Your task to perform on an android device: check android version Image 0: 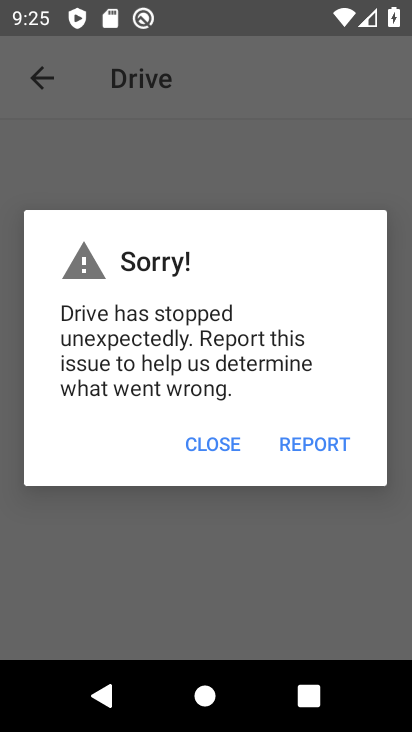
Step 0: press home button
Your task to perform on an android device: check android version Image 1: 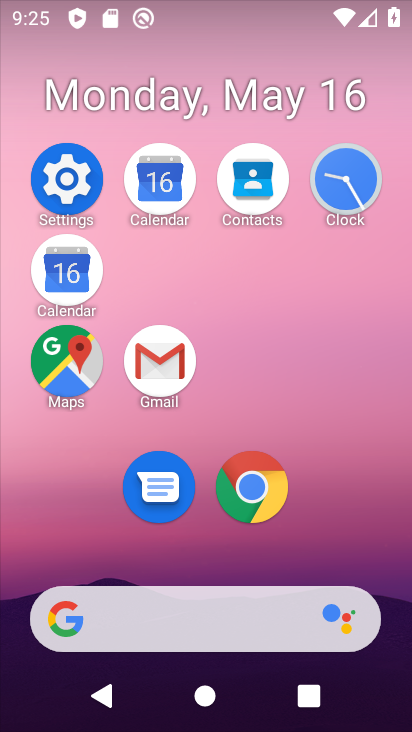
Step 1: click (81, 170)
Your task to perform on an android device: check android version Image 2: 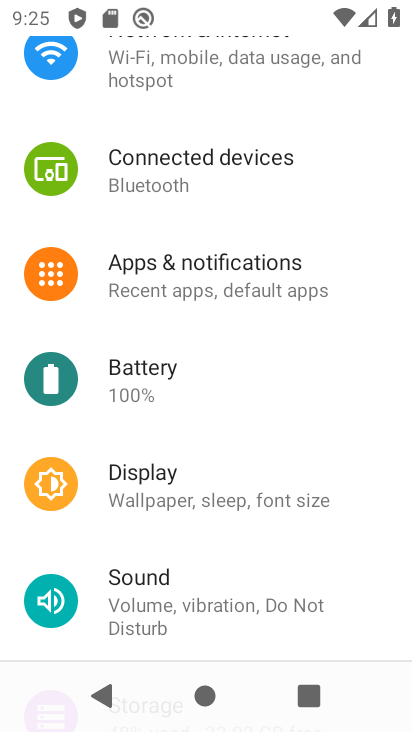
Step 2: drag from (299, 608) to (308, 172)
Your task to perform on an android device: check android version Image 3: 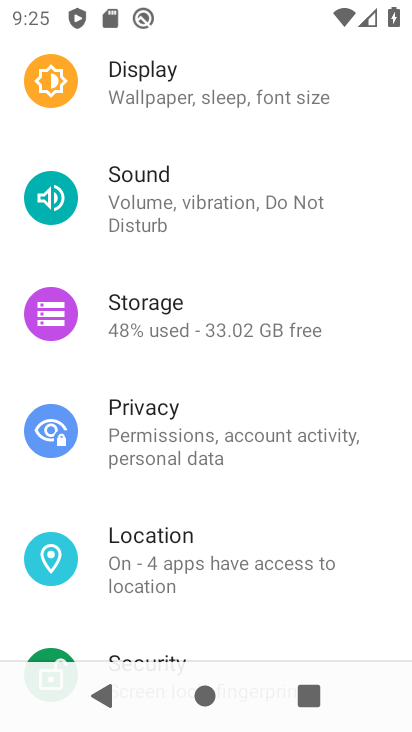
Step 3: drag from (232, 589) to (226, 181)
Your task to perform on an android device: check android version Image 4: 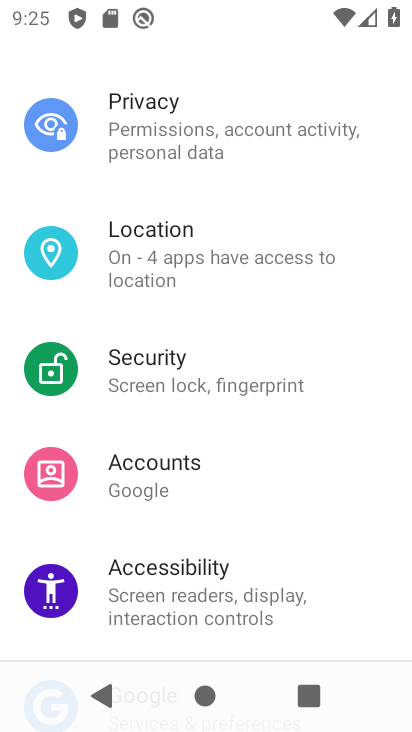
Step 4: drag from (195, 550) to (188, 173)
Your task to perform on an android device: check android version Image 5: 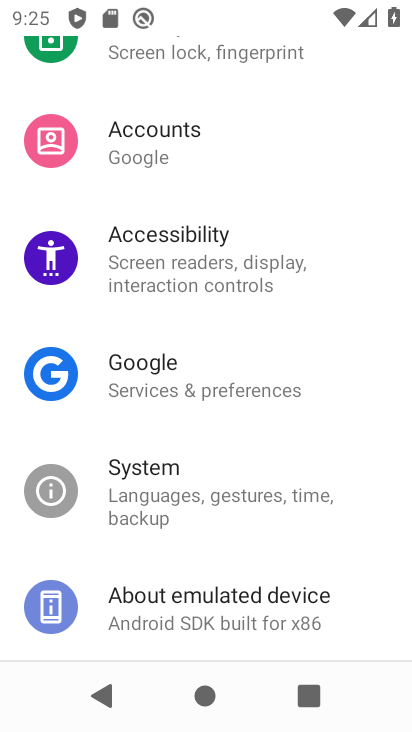
Step 5: click (187, 586)
Your task to perform on an android device: check android version Image 6: 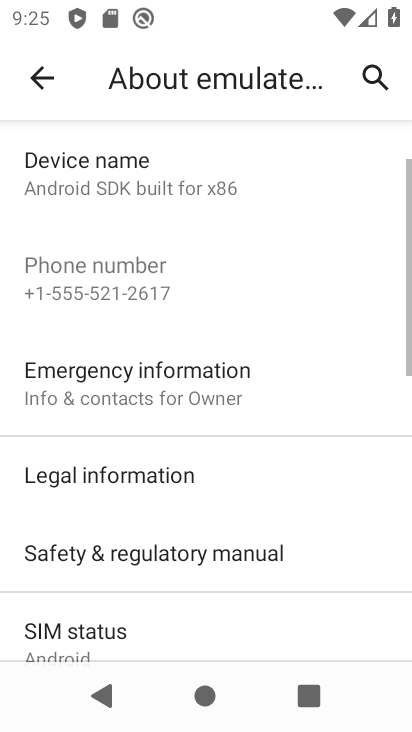
Step 6: task complete